Your task to perform on an android device: change text size in settings app Image 0: 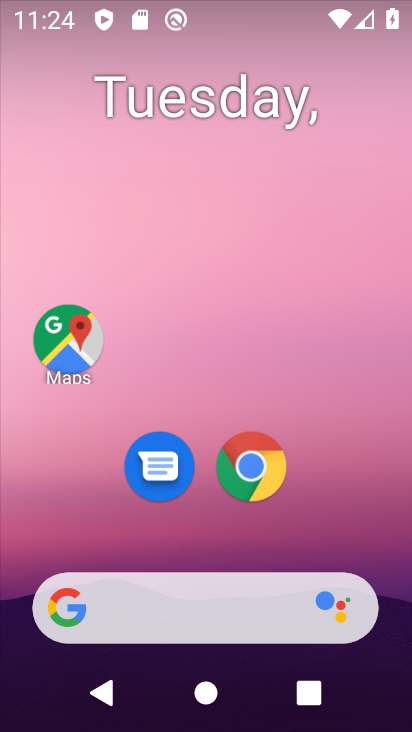
Step 0: drag from (174, 558) to (99, 98)
Your task to perform on an android device: change text size in settings app Image 1: 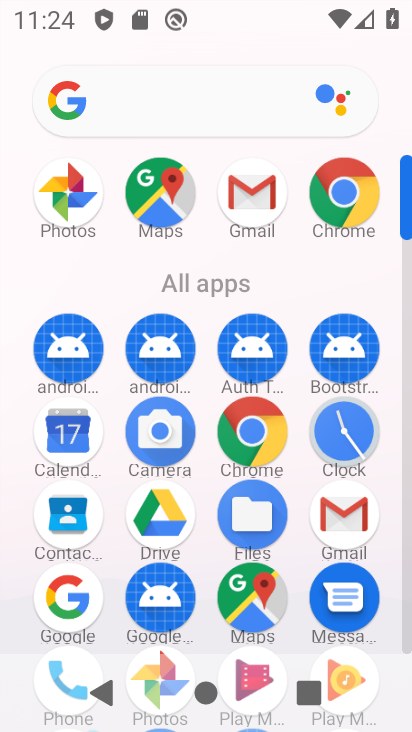
Step 1: drag from (116, 573) to (85, 264)
Your task to perform on an android device: change text size in settings app Image 2: 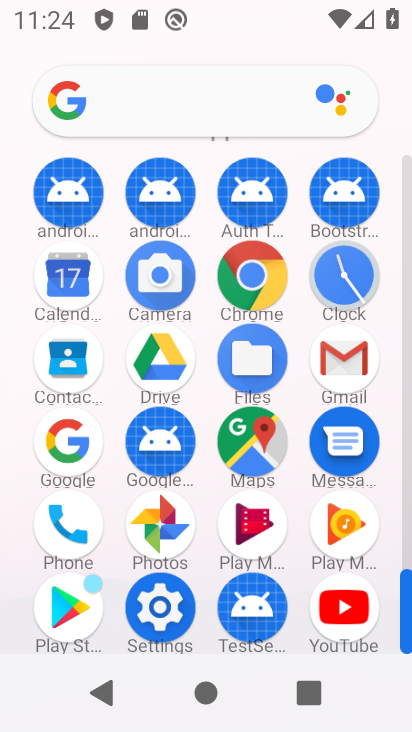
Step 2: click (165, 600)
Your task to perform on an android device: change text size in settings app Image 3: 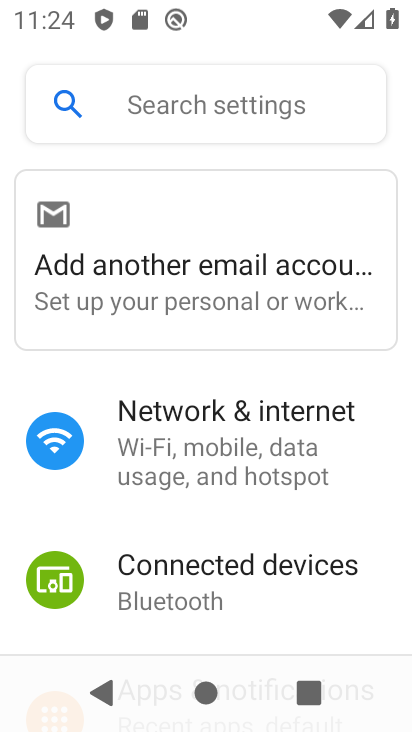
Step 3: drag from (161, 597) to (96, 170)
Your task to perform on an android device: change text size in settings app Image 4: 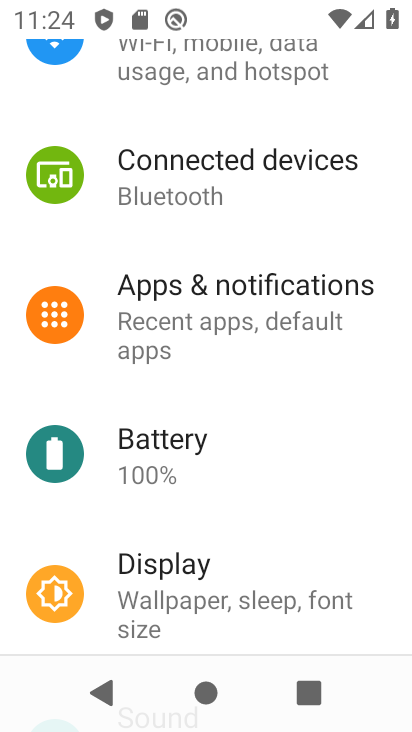
Step 4: click (191, 612)
Your task to perform on an android device: change text size in settings app Image 5: 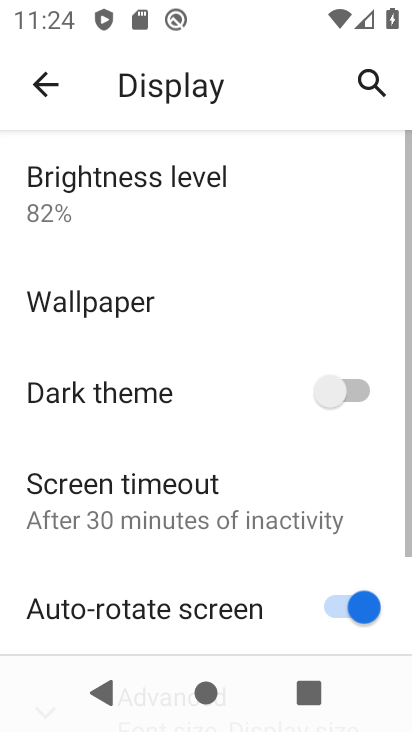
Step 5: drag from (187, 596) to (126, 107)
Your task to perform on an android device: change text size in settings app Image 6: 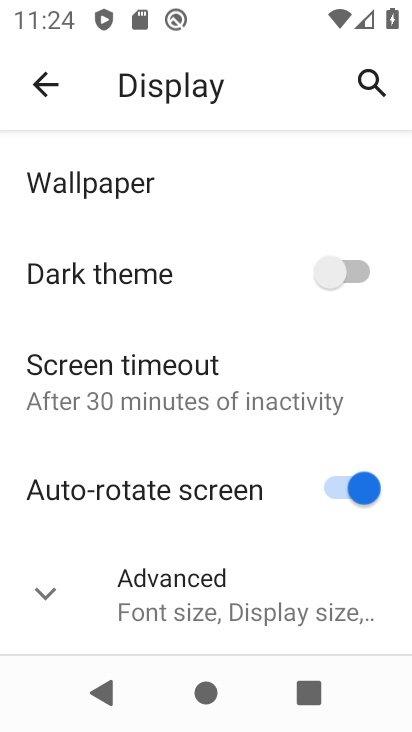
Step 6: click (183, 607)
Your task to perform on an android device: change text size in settings app Image 7: 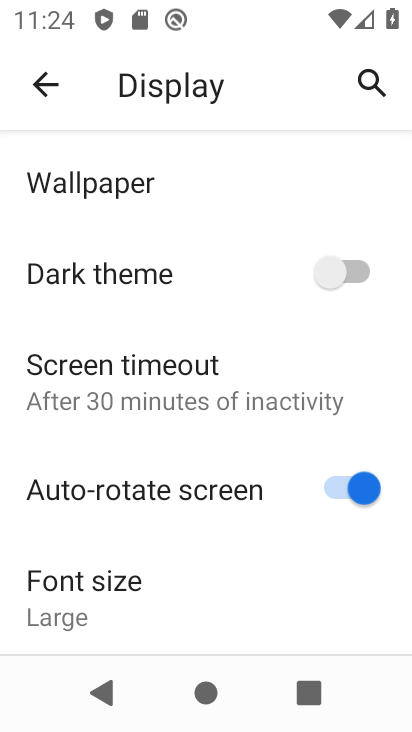
Step 7: click (183, 607)
Your task to perform on an android device: change text size in settings app Image 8: 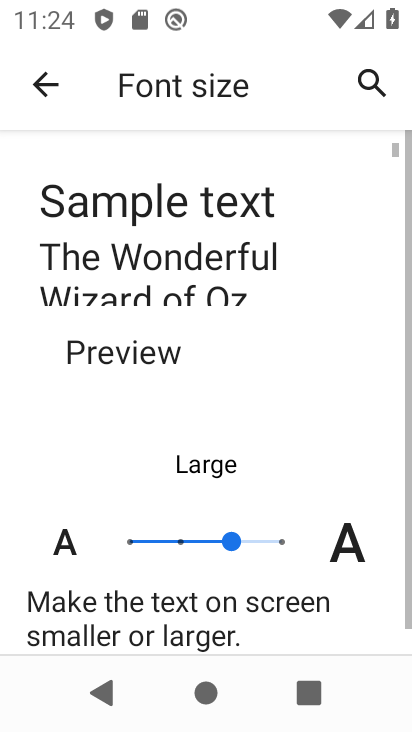
Step 8: click (170, 535)
Your task to perform on an android device: change text size in settings app Image 9: 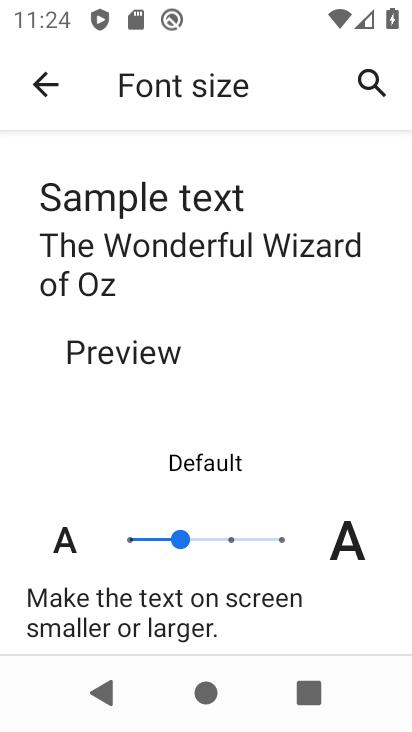
Step 9: task complete